Your task to perform on an android device: Add "dell alienware" to the cart on bestbuy.com, then select checkout. Image 0: 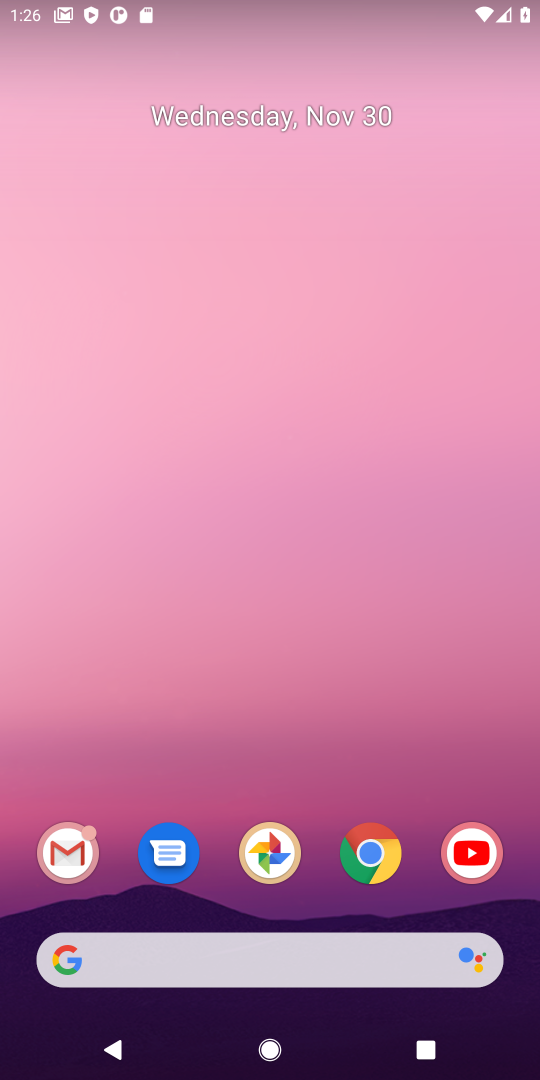
Step 0: click (372, 848)
Your task to perform on an android device: Add "dell alienware" to the cart on bestbuy.com, then select checkout. Image 1: 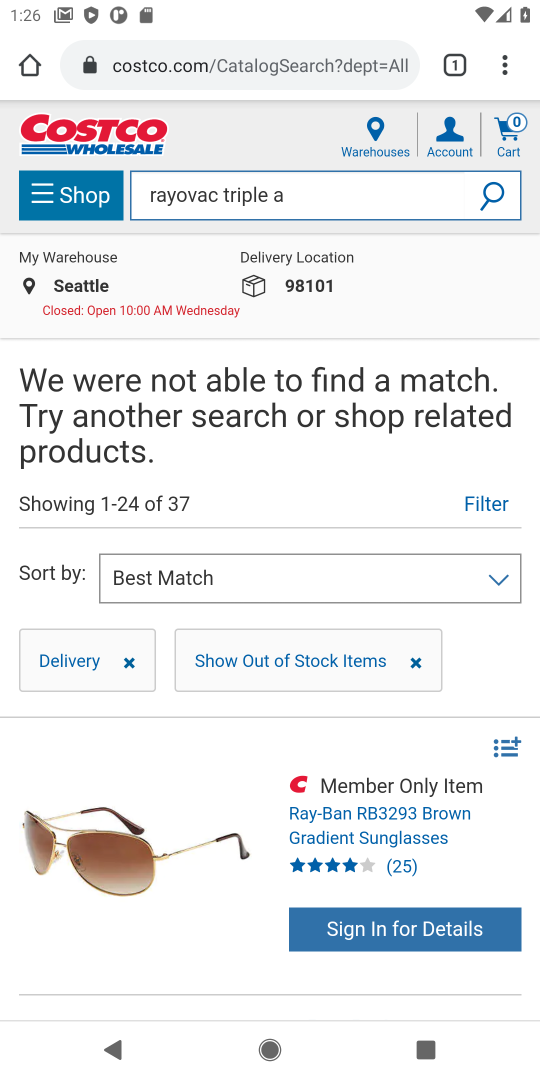
Step 1: click (188, 62)
Your task to perform on an android device: Add "dell alienware" to the cart on bestbuy.com, then select checkout. Image 2: 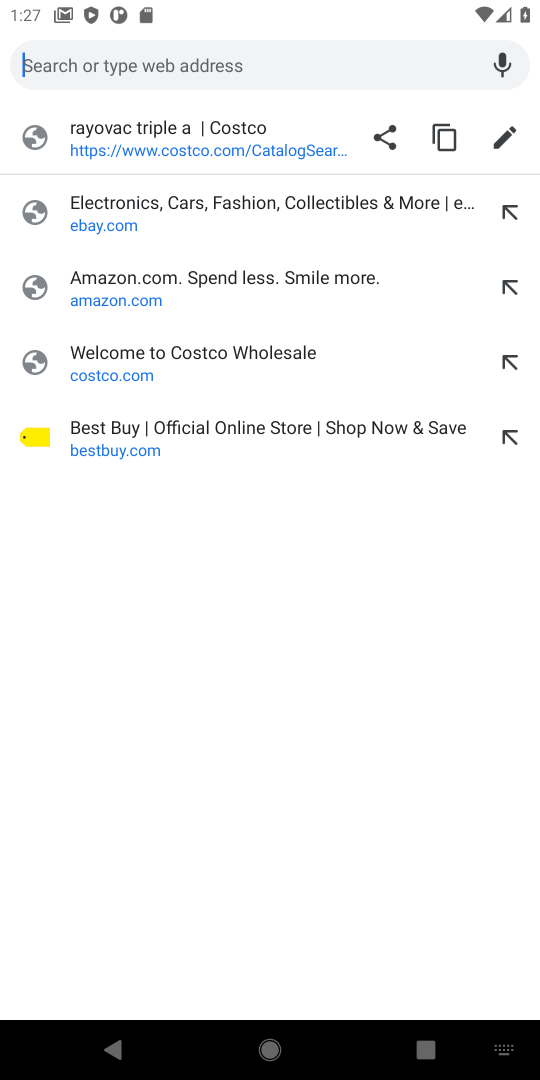
Step 2: click (88, 434)
Your task to perform on an android device: Add "dell alienware" to the cart on bestbuy.com, then select checkout. Image 3: 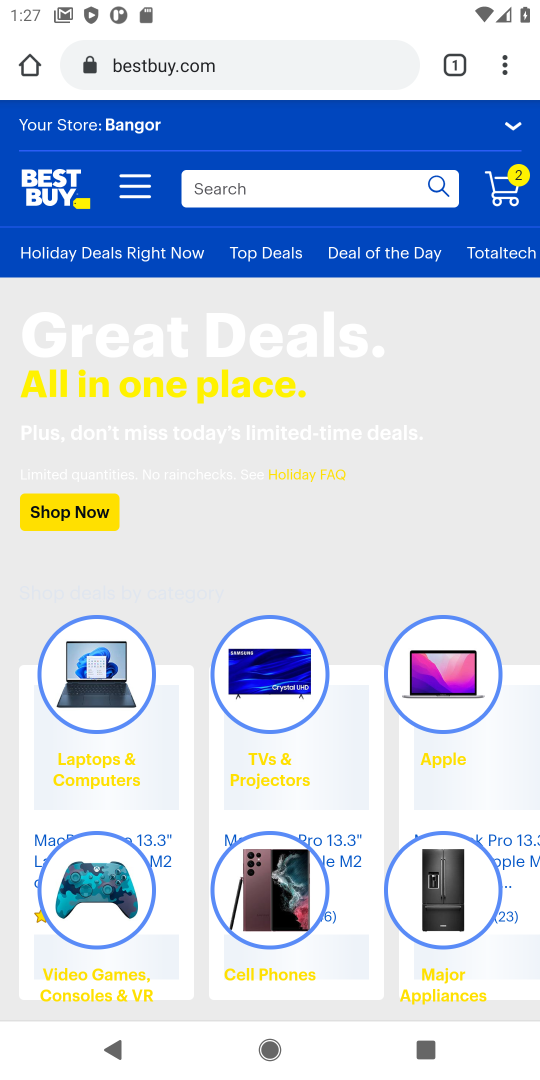
Step 3: click (242, 190)
Your task to perform on an android device: Add "dell alienware" to the cart on bestbuy.com, then select checkout. Image 4: 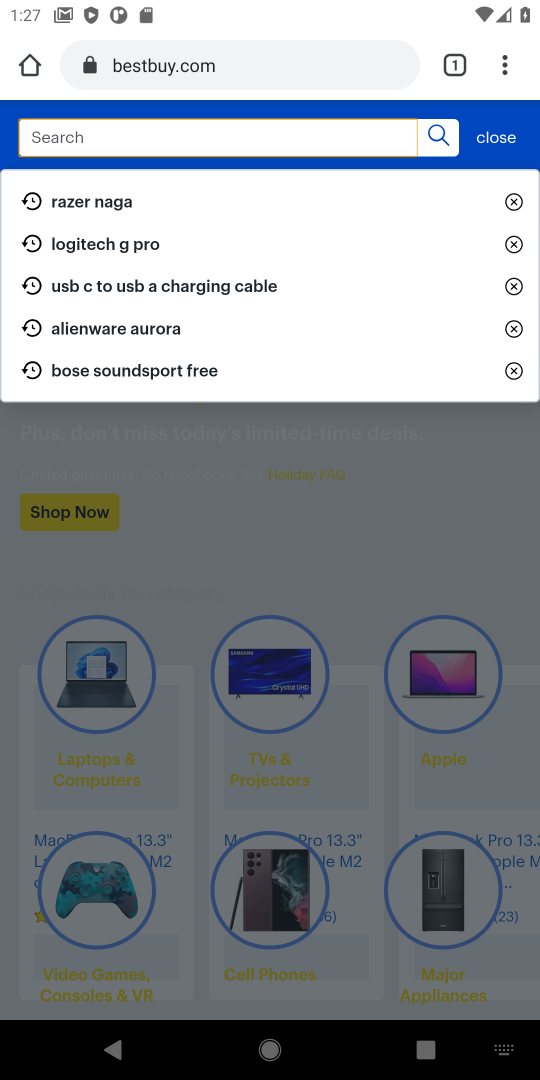
Step 4: type "dell alienware"
Your task to perform on an android device: Add "dell alienware" to the cart on bestbuy.com, then select checkout. Image 5: 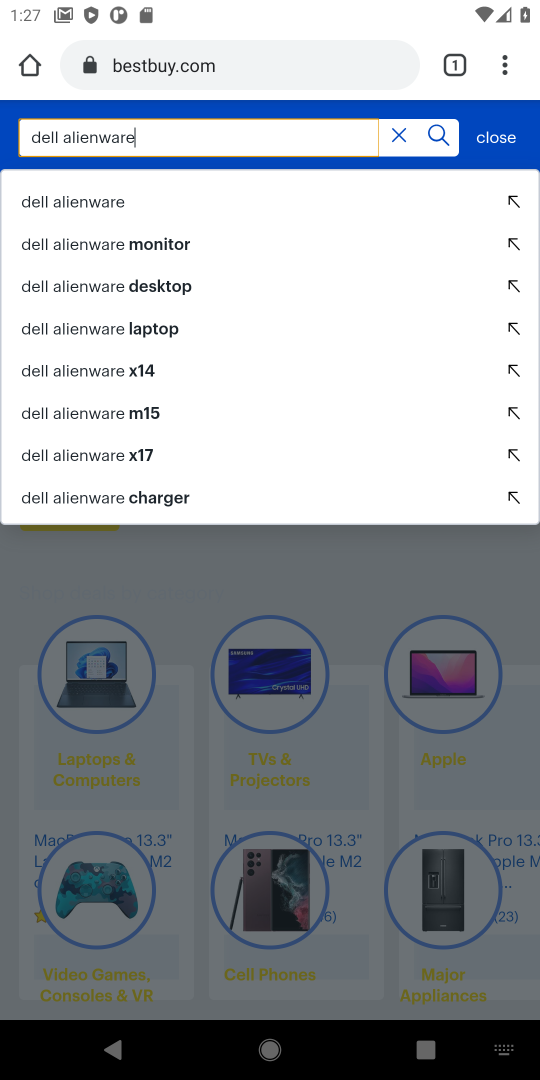
Step 5: click (31, 204)
Your task to perform on an android device: Add "dell alienware" to the cart on bestbuy.com, then select checkout. Image 6: 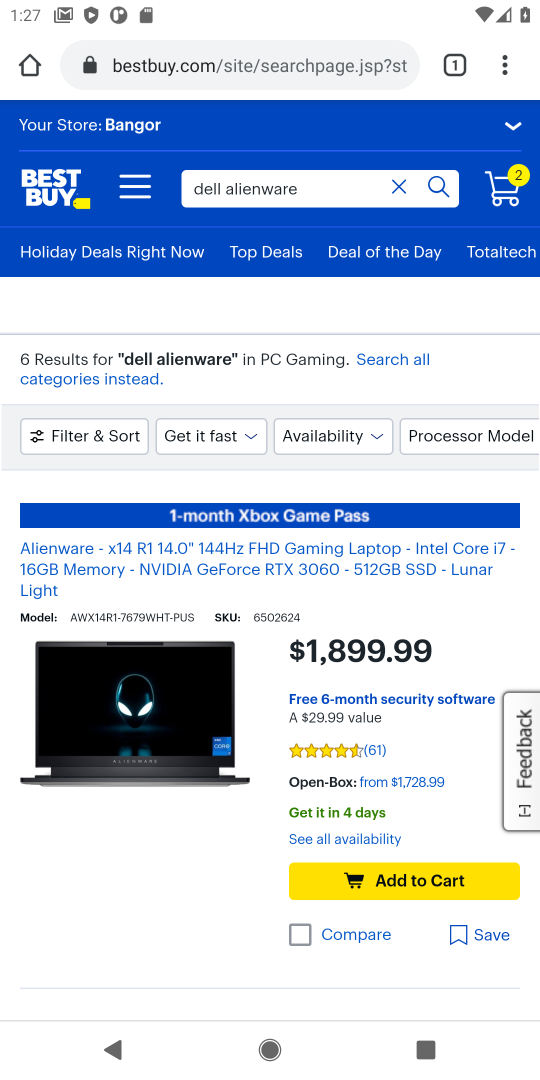
Step 6: click (396, 885)
Your task to perform on an android device: Add "dell alienware" to the cart on bestbuy.com, then select checkout. Image 7: 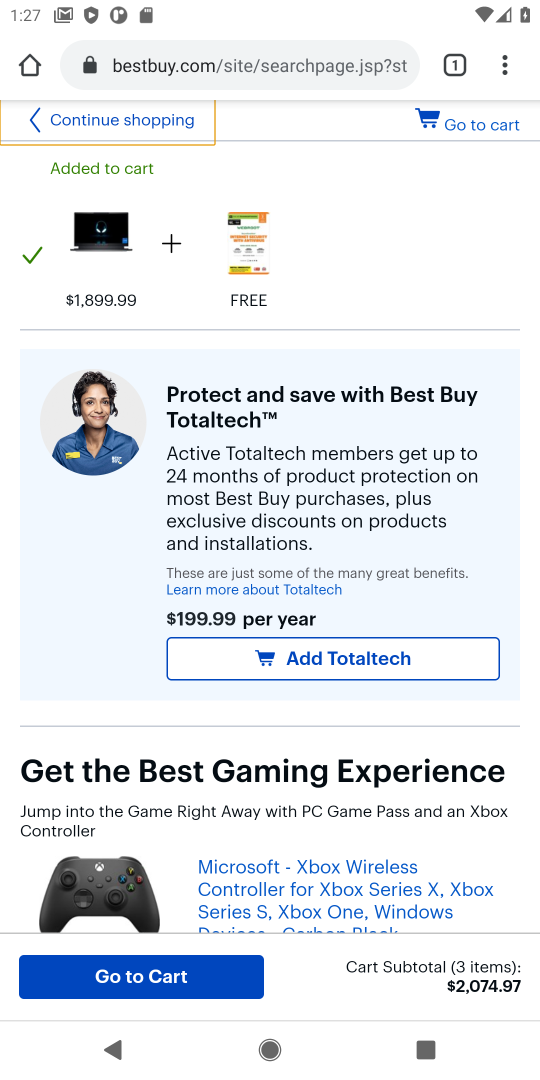
Step 7: click (487, 123)
Your task to perform on an android device: Add "dell alienware" to the cart on bestbuy.com, then select checkout. Image 8: 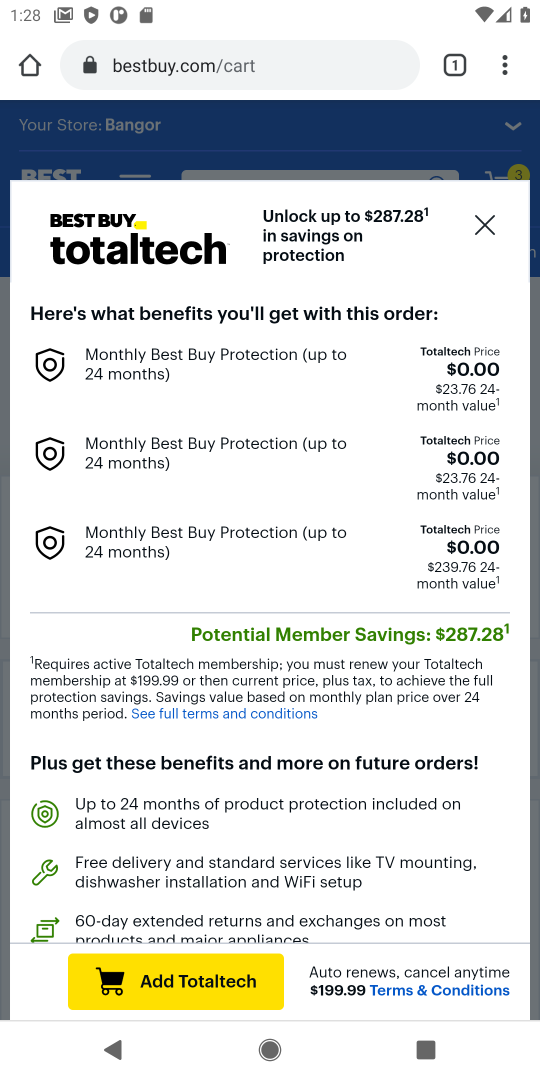
Step 8: click (279, 588)
Your task to perform on an android device: Add "dell alienware" to the cart on bestbuy.com, then select checkout. Image 9: 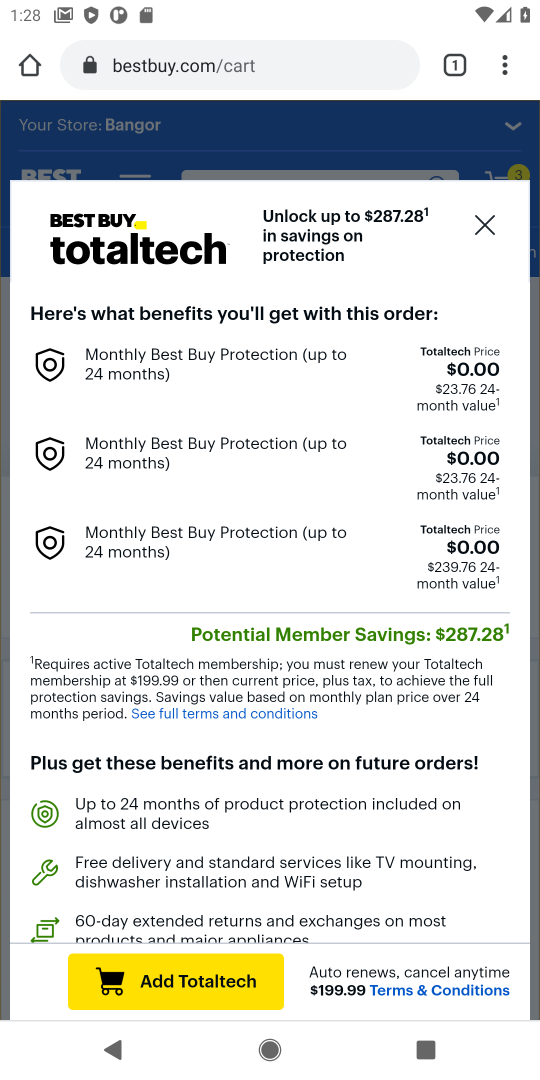
Step 9: click (492, 233)
Your task to perform on an android device: Add "dell alienware" to the cart on bestbuy.com, then select checkout. Image 10: 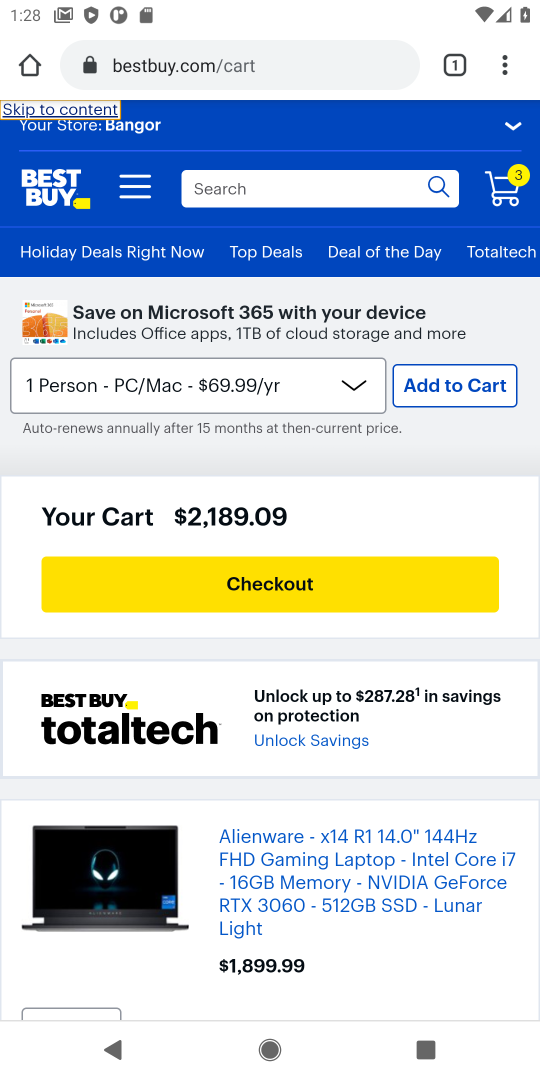
Step 10: click (265, 586)
Your task to perform on an android device: Add "dell alienware" to the cart on bestbuy.com, then select checkout. Image 11: 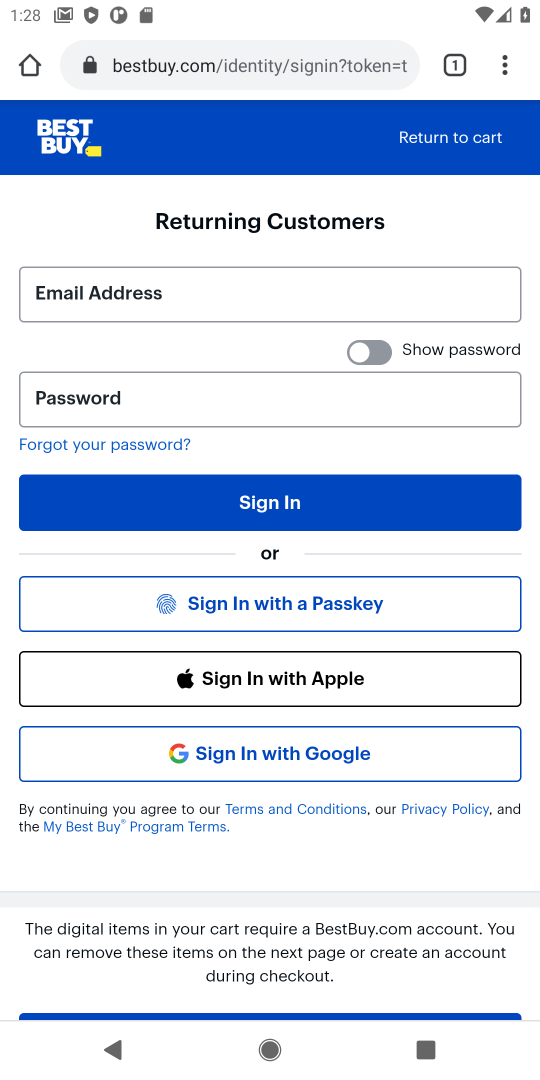
Step 11: task complete